Your task to perform on an android device: Search for "bose soundsport free" on walmart, select the first entry, add it to the cart, then select checkout. Image 0: 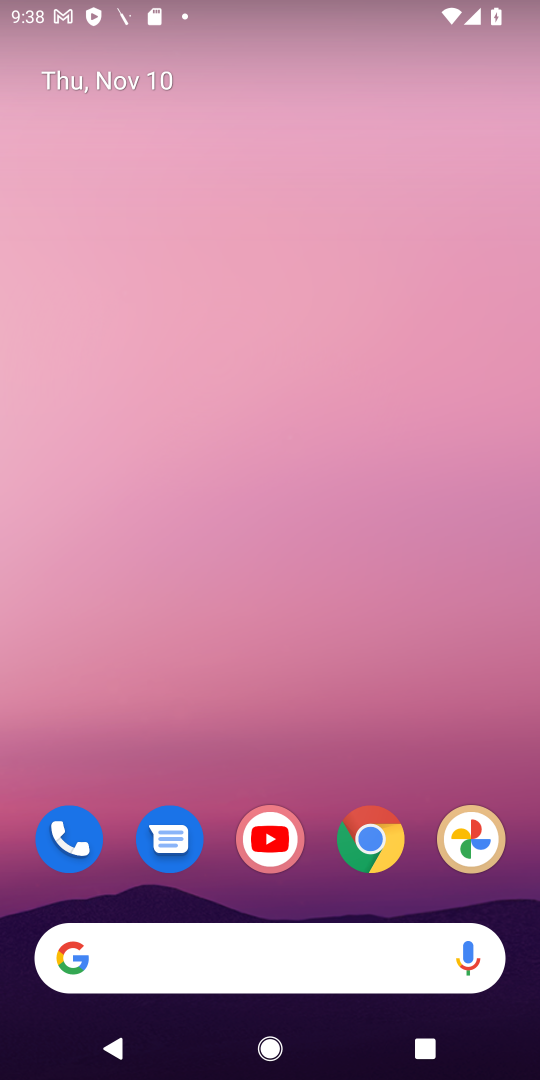
Step 0: click (387, 834)
Your task to perform on an android device: Search for "bose soundsport free" on walmart, select the first entry, add it to the cart, then select checkout. Image 1: 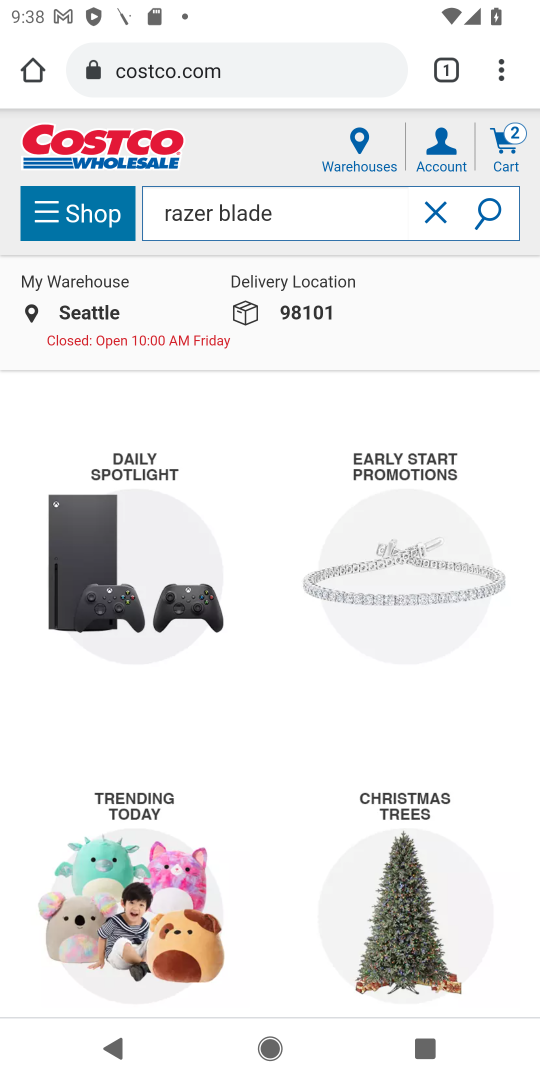
Step 1: click (290, 60)
Your task to perform on an android device: Search for "bose soundsport free" on walmart, select the first entry, add it to the cart, then select checkout. Image 2: 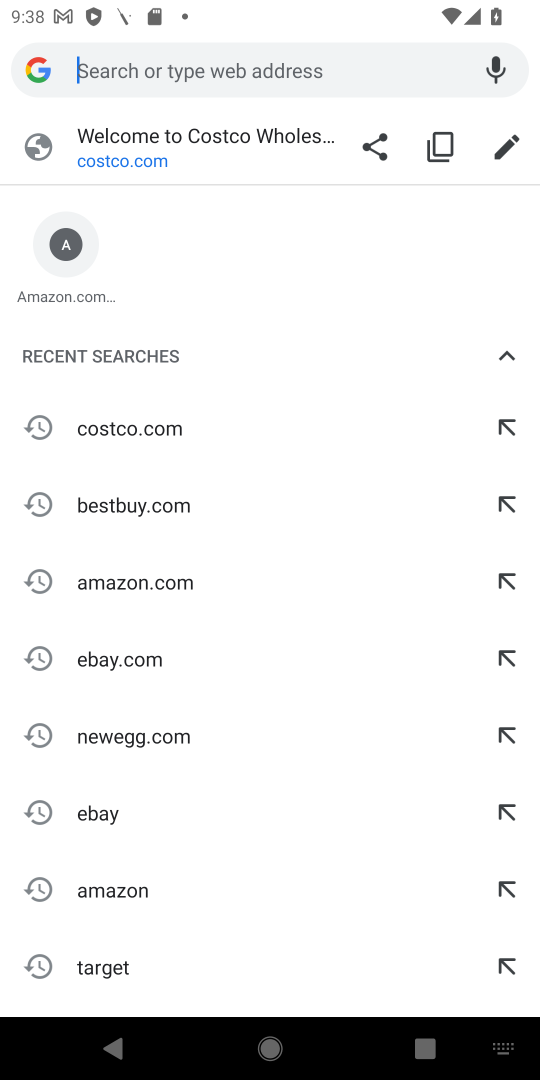
Step 2: type "walmart"
Your task to perform on an android device: Search for "bose soundsport free" on walmart, select the first entry, add it to the cart, then select checkout. Image 3: 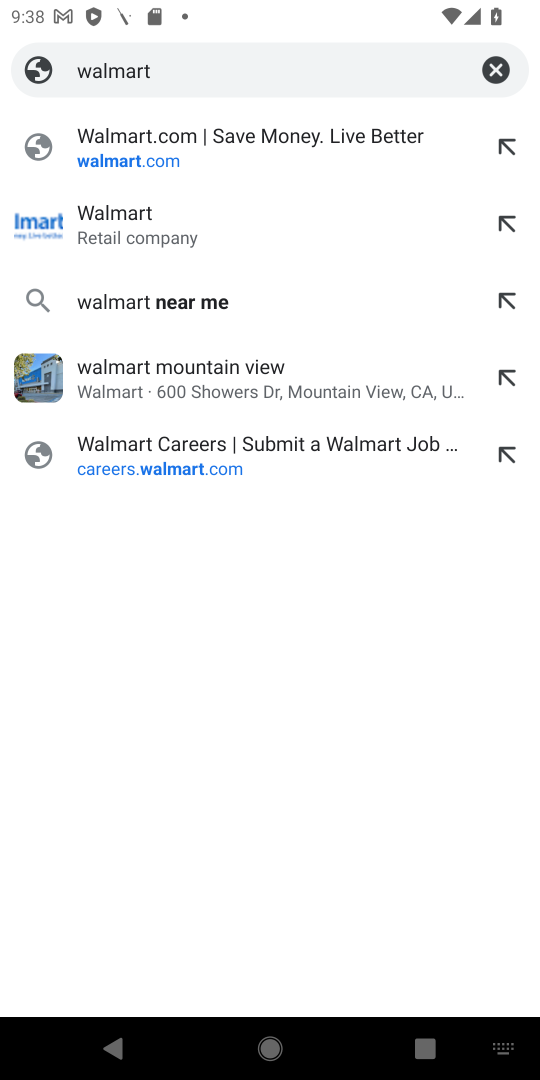
Step 3: click (167, 138)
Your task to perform on an android device: Search for "bose soundsport free" on walmart, select the first entry, add it to the cart, then select checkout. Image 4: 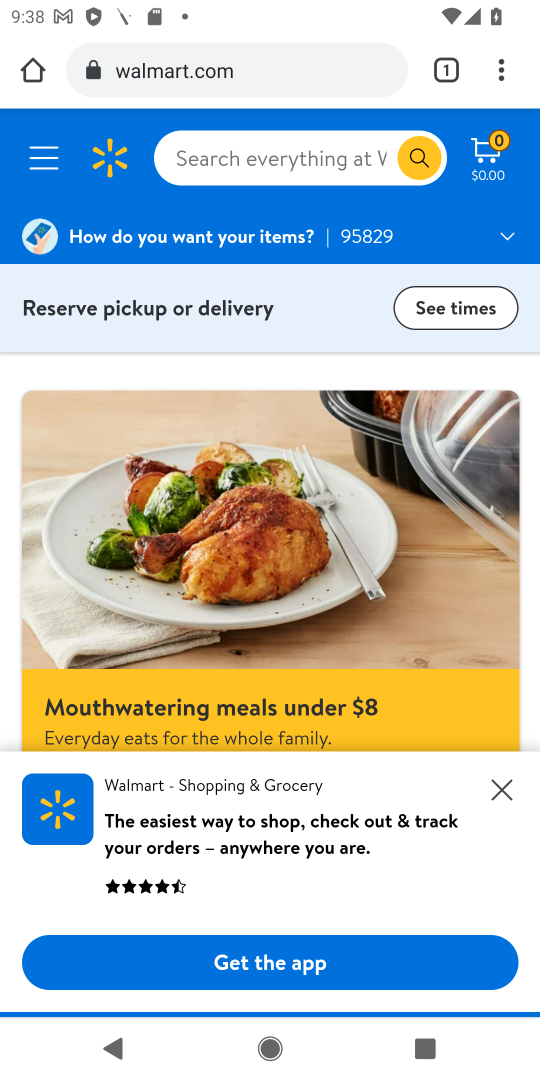
Step 4: click (506, 794)
Your task to perform on an android device: Search for "bose soundsport free" on walmart, select the first entry, add it to the cart, then select checkout. Image 5: 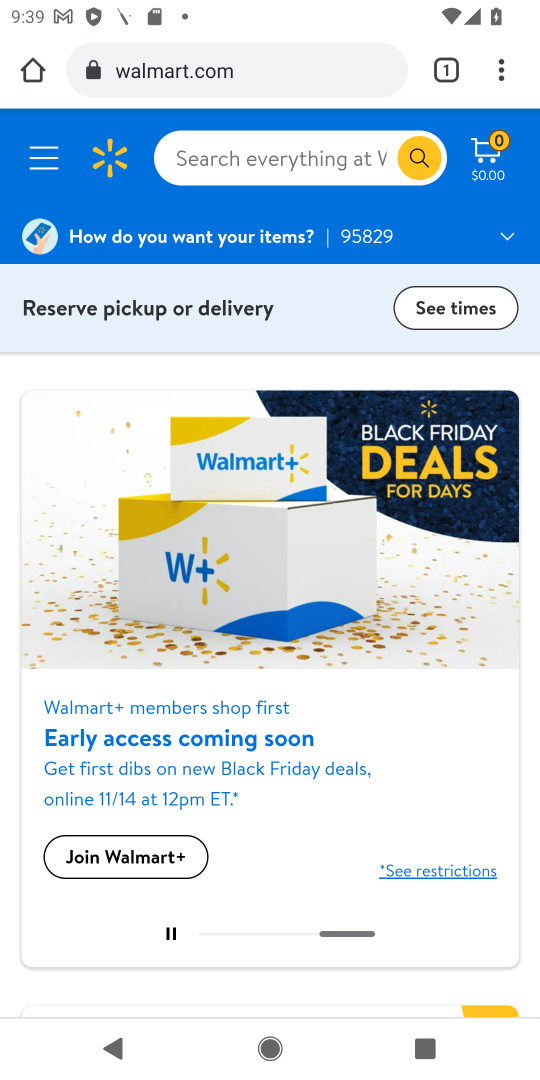
Step 5: click (298, 156)
Your task to perform on an android device: Search for "bose soundsport free" on walmart, select the first entry, add it to the cart, then select checkout. Image 6: 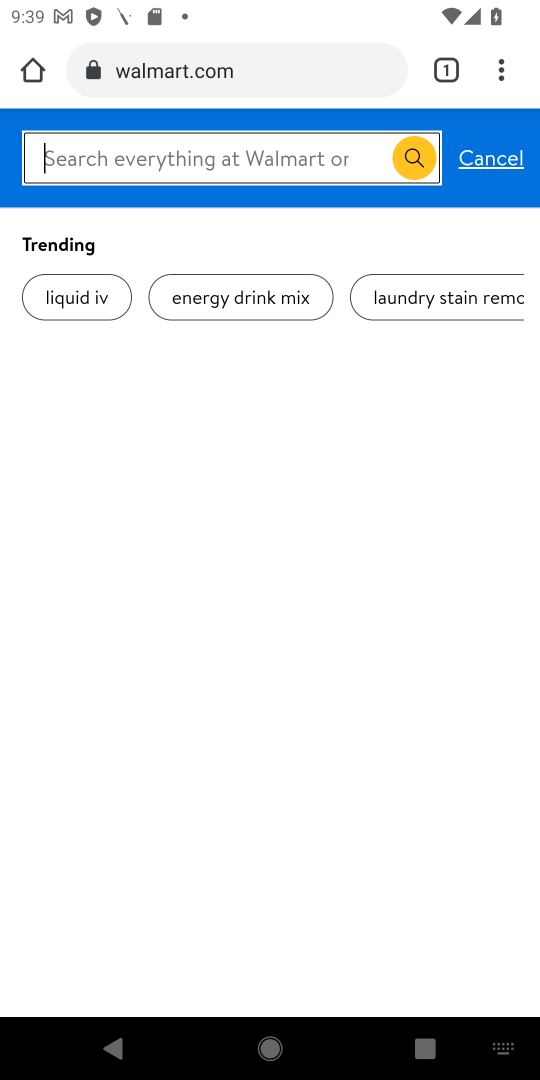
Step 6: type "bose soundsport free"
Your task to perform on an android device: Search for "bose soundsport free" on walmart, select the first entry, add it to the cart, then select checkout. Image 7: 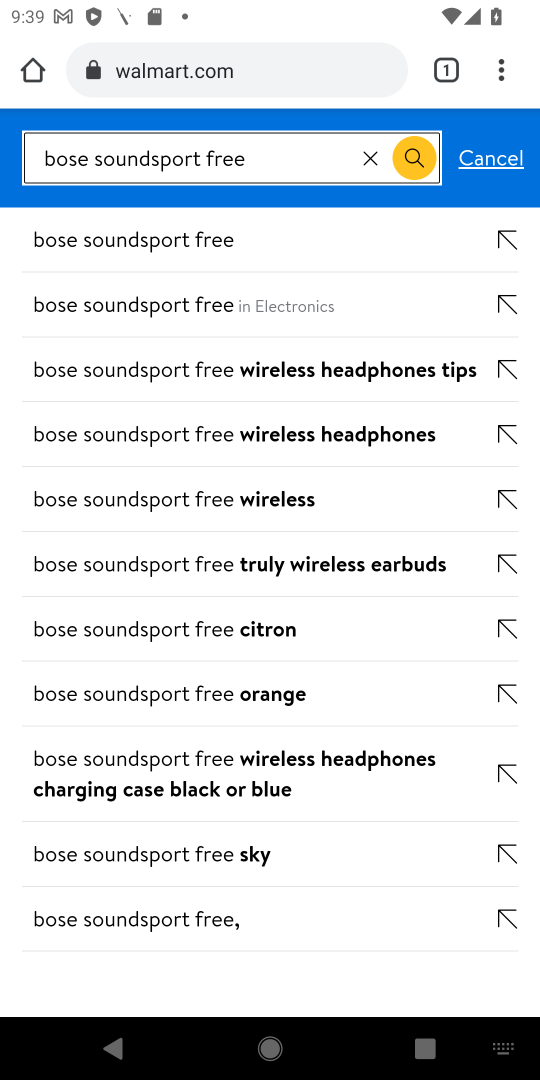
Step 7: click (210, 236)
Your task to perform on an android device: Search for "bose soundsport free" on walmart, select the first entry, add it to the cart, then select checkout. Image 8: 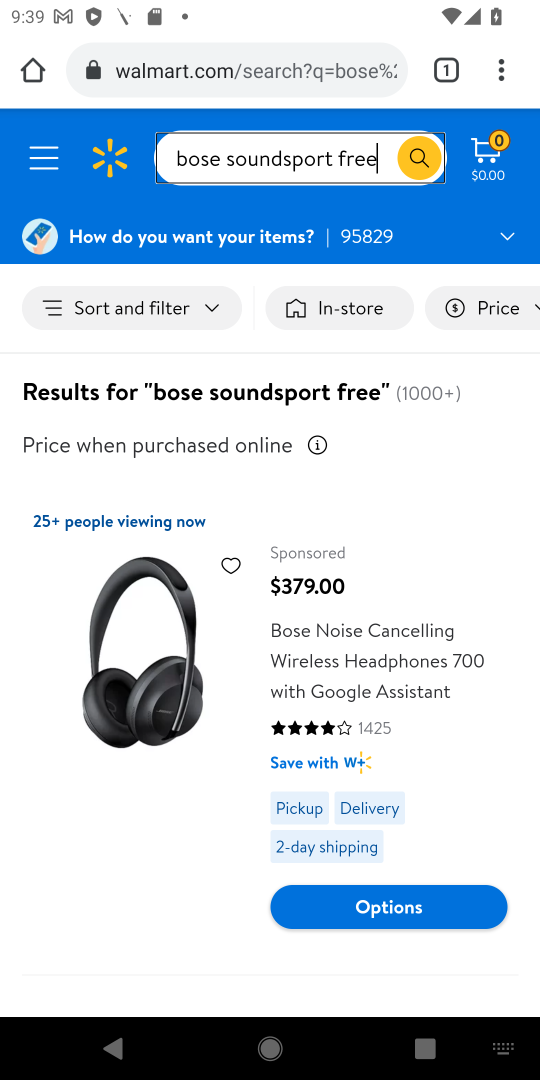
Step 8: task complete